Your task to perform on an android device: Look up the top rated 18v miter saw on Home Depot. Image 0: 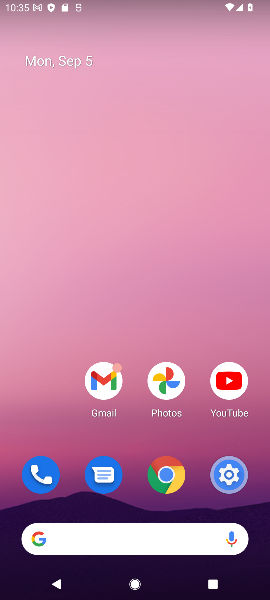
Step 0: click (118, 536)
Your task to perform on an android device: Look up the top rated 18v miter saw on Home Depot. Image 1: 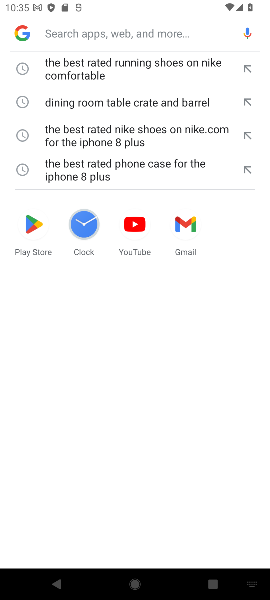
Step 1: type "the top rated 18v miter saw on Home Depot."
Your task to perform on an android device: Look up the top rated 18v miter saw on Home Depot. Image 2: 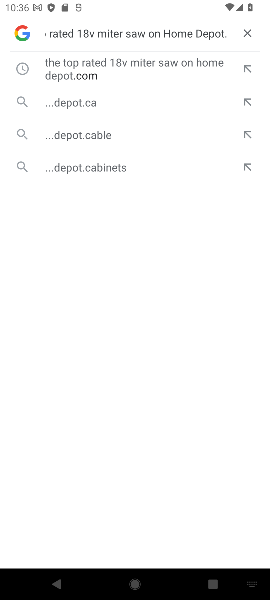
Step 2: click (62, 61)
Your task to perform on an android device: Look up the top rated 18v miter saw on Home Depot. Image 3: 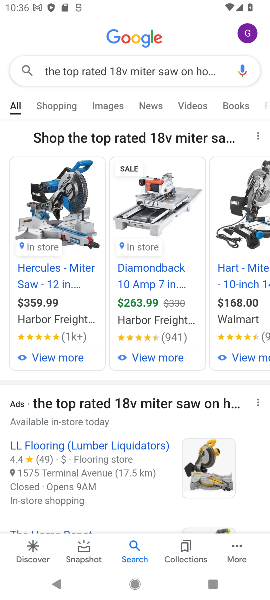
Step 3: click (132, 80)
Your task to perform on an android device: Look up the top rated 18v miter saw on Home Depot. Image 4: 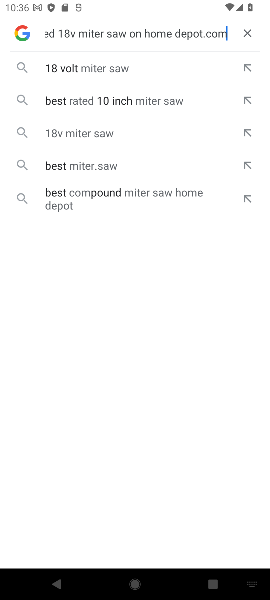
Step 4: task complete